Your task to perform on an android device: Go to battery settings Image 0: 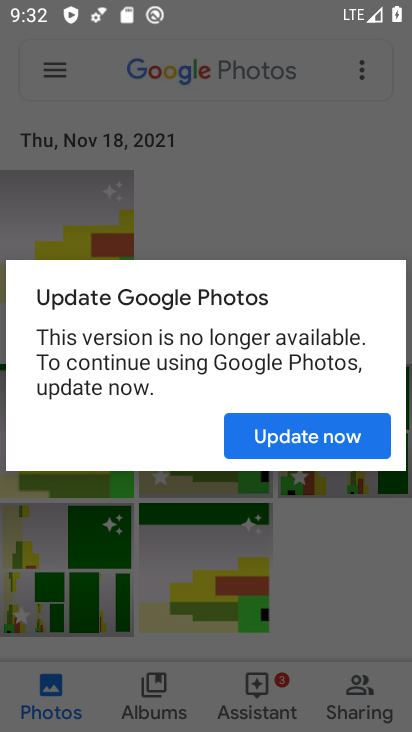
Step 0: press home button
Your task to perform on an android device: Go to battery settings Image 1: 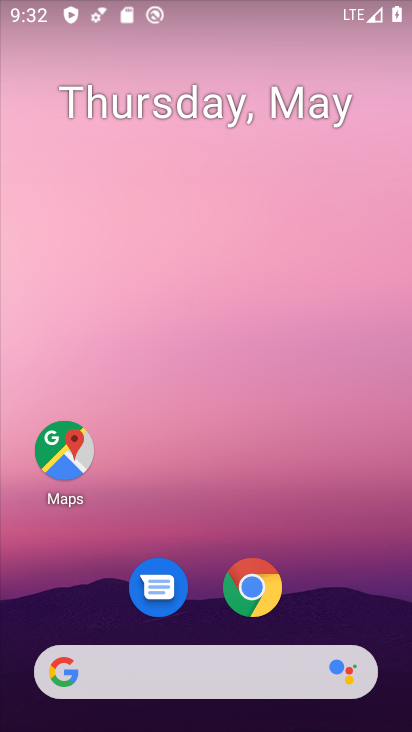
Step 1: drag from (338, 590) to (322, 3)
Your task to perform on an android device: Go to battery settings Image 2: 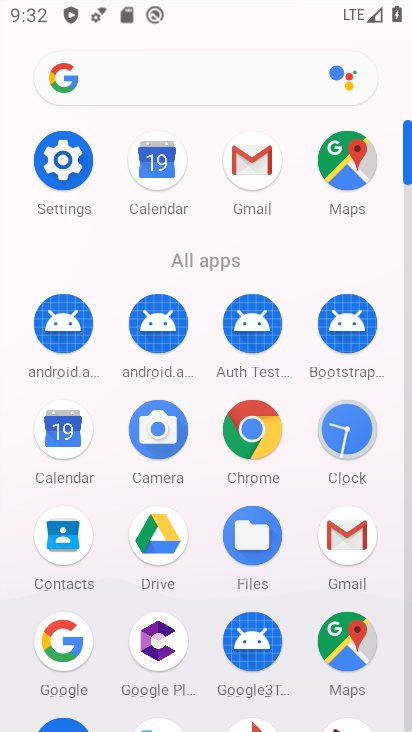
Step 2: click (63, 171)
Your task to perform on an android device: Go to battery settings Image 3: 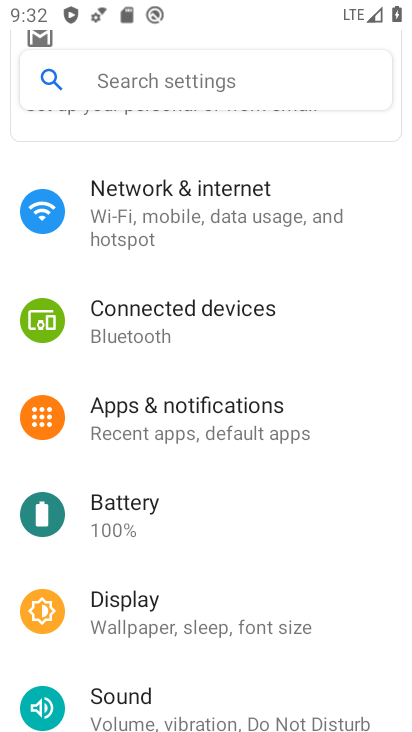
Step 3: click (109, 509)
Your task to perform on an android device: Go to battery settings Image 4: 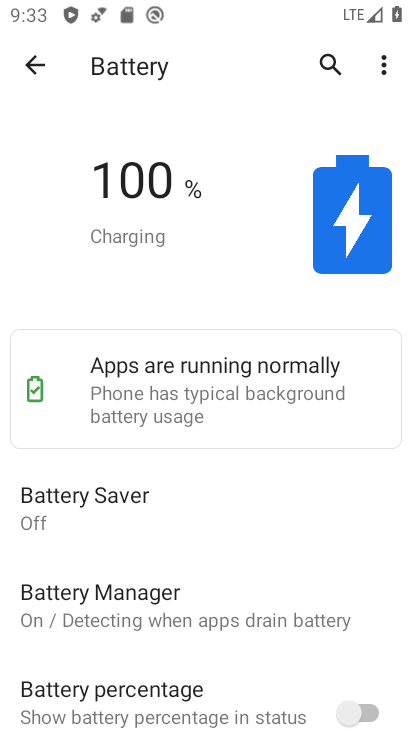
Step 4: task complete